Your task to perform on an android device: add a contact Image 0: 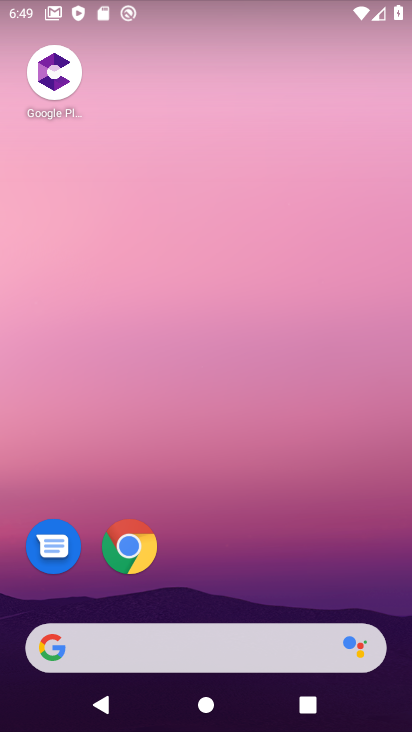
Step 0: drag from (315, 550) to (326, 124)
Your task to perform on an android device: add a contact Image 1: 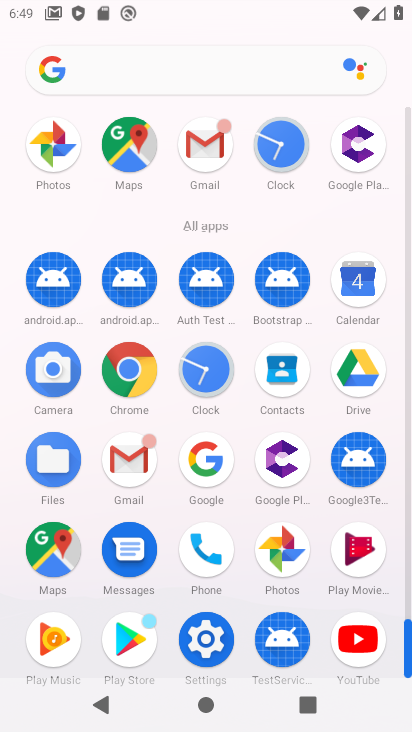
Step 1: click (274, 362)
Your task to perform on an android device: add a contact Image 2: 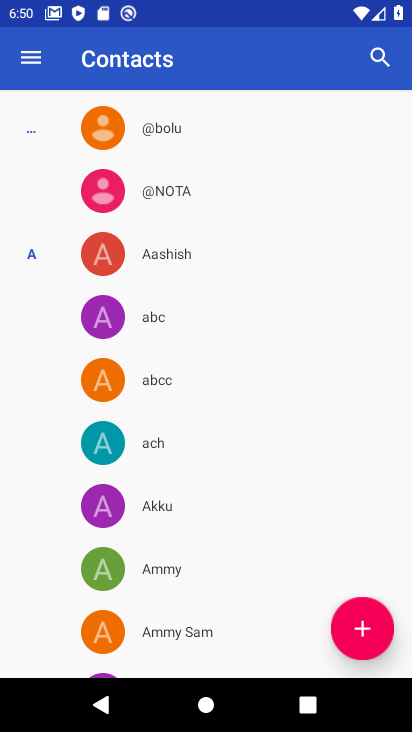
Step 2: click (365, 634)
Your task to perform on an android device: add a contact Image 3: 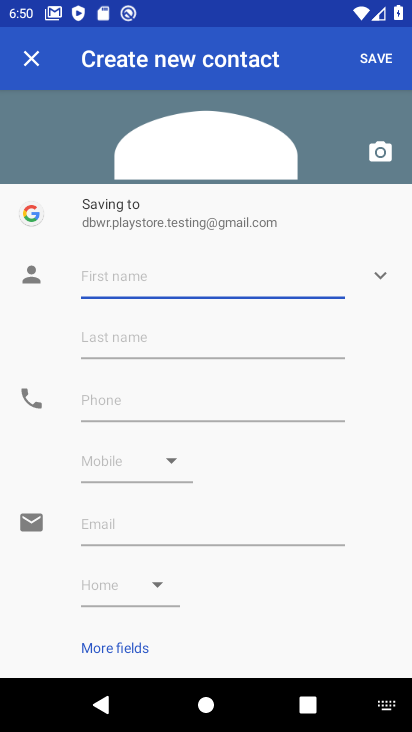
Step 3: type "tw4g"
Your task to perform on an android device: add a contact Image 4: 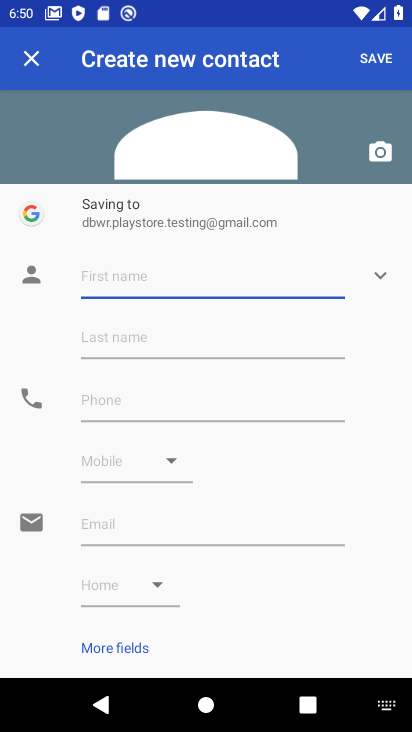
Step 4: click (189, 414)
Your task to perform on an android device: add a contact Image 5: 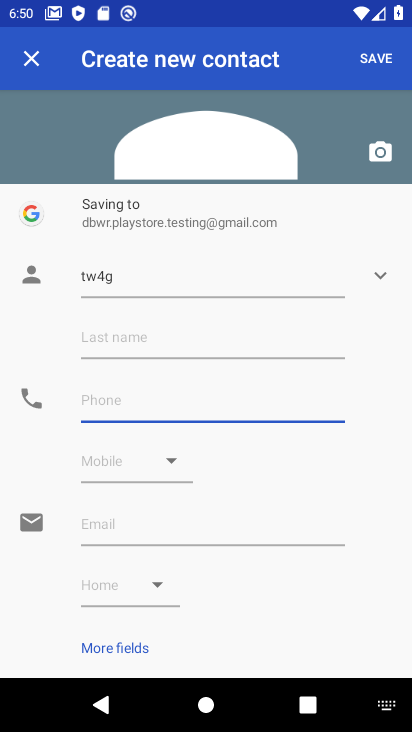
Step 5: type "6565565665"
Your task to perform on an android device: add a contact Image 6: 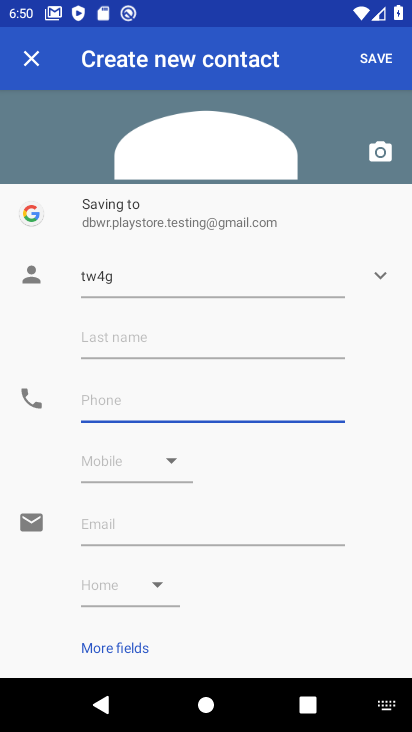
Step 6: click (381, 76)
Your task to perform on an android device: add a contact Image 7: 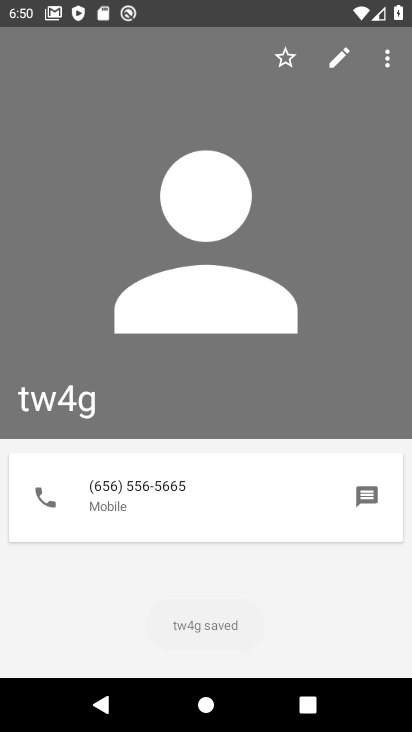
Step 7: task complete